Your task to perform on an android device: Open Yahoo.com Image 0: 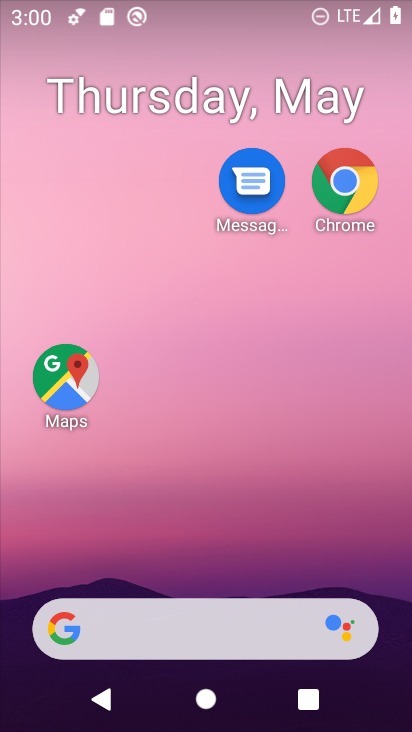
Step 0: drag from (288, 612) to (283, 22)
Your task to perform on an android device: Open Yahoo.com Image 1: 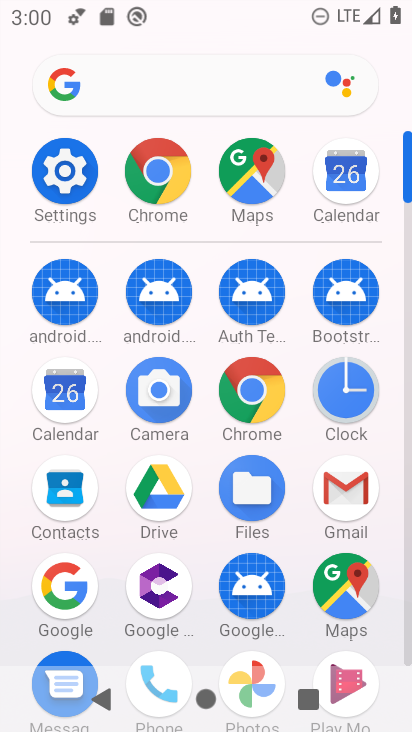
Step 1: click (257, 376)
Your task to perform on an android device: Open Yahoo.com Image 2: 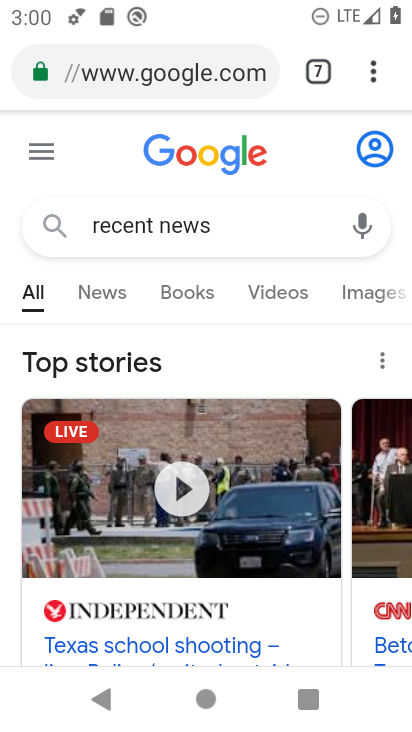
Step 2: click (228, 81)
Your task to perform on an android device: Open Yahoo.com Image 3: 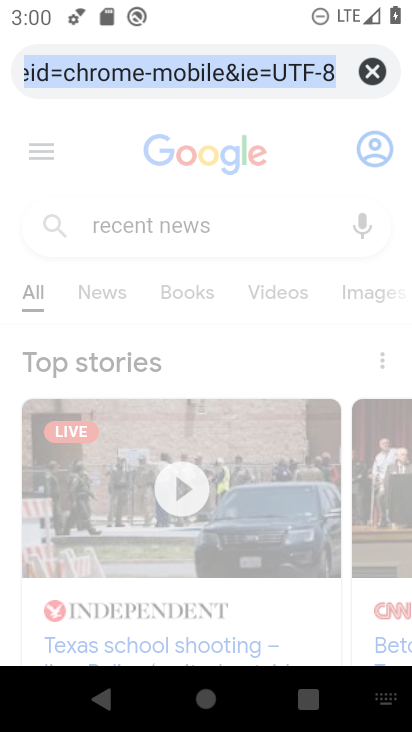
Step 3: type "yahoo.com"
Your task to perform on an android device: Open Yahoo.com Image 4: 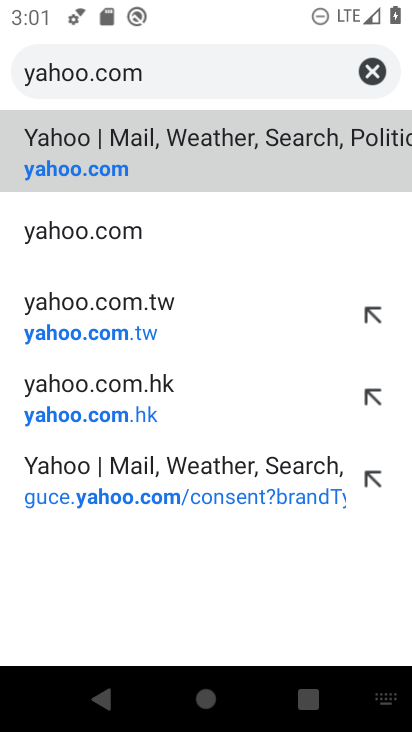
Step 4: click (289, 155)
Your task to perform on an android device: Open Yahoo.com Image 5: 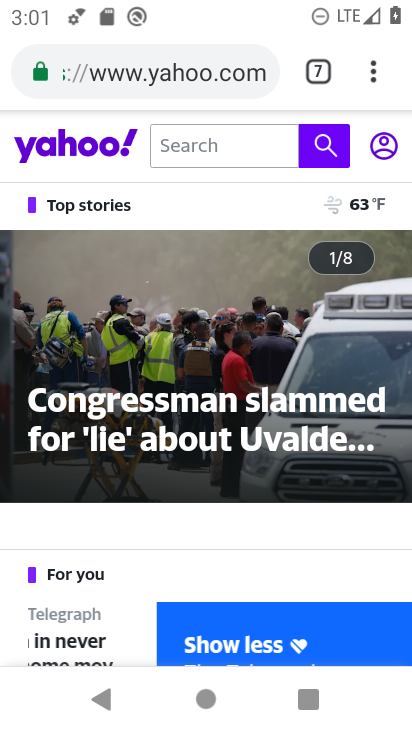
Step 5: task complete